Your task to perform on an android device: turn smart compose on in the gmail app Image 0: 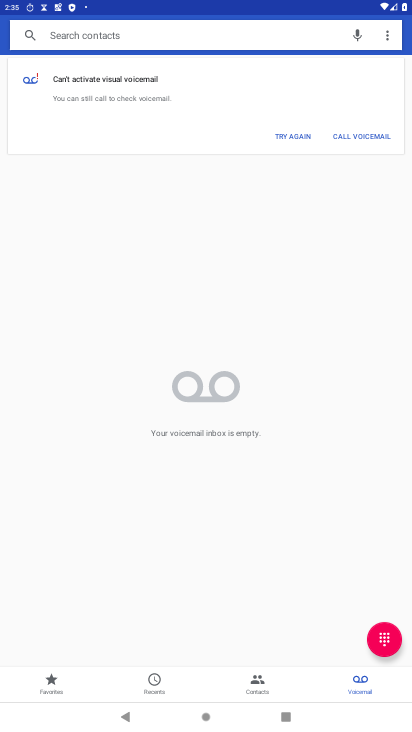
Step 0: press home button
Your task to perform on an android device: turn smart compose on in the gmail app Image 1: 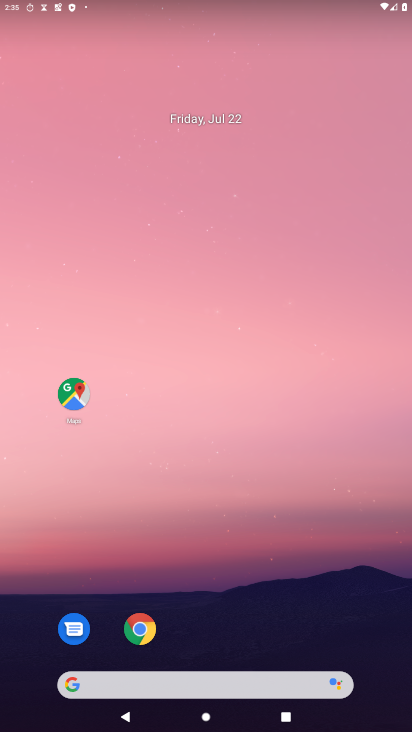
Step 1: drag from (241, 525) to (312, 12)
Your task to perform on an android device: turn smart compose on in the gmail app Image 2: 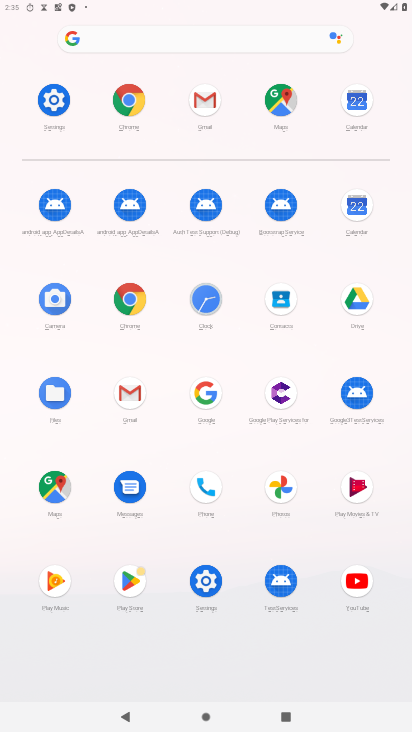
Step 2: click (137, 394)
Your task to perform on an android device: turn smart compose on in the gmail app Image 3: 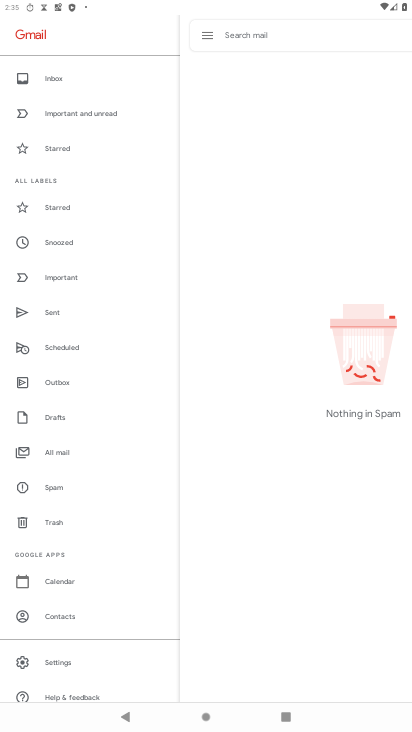
Step 3: click (67, 667)
Your task to perform on an android device: turn smart compose on in the gmail app Image 4: 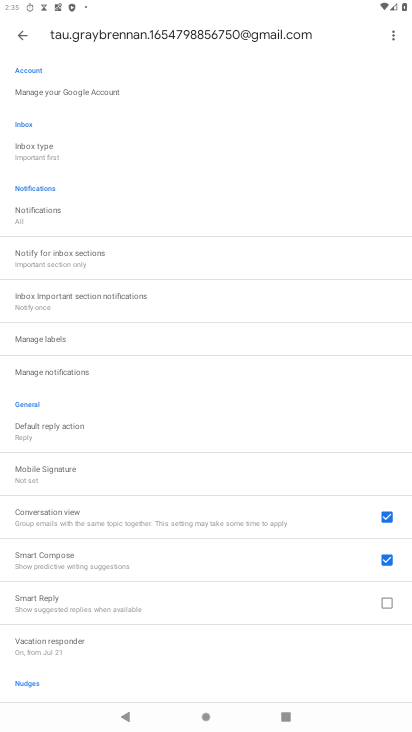
Step 4: task complete